Your task to perform on an android device: install app "Mercado Libre" Image 0: 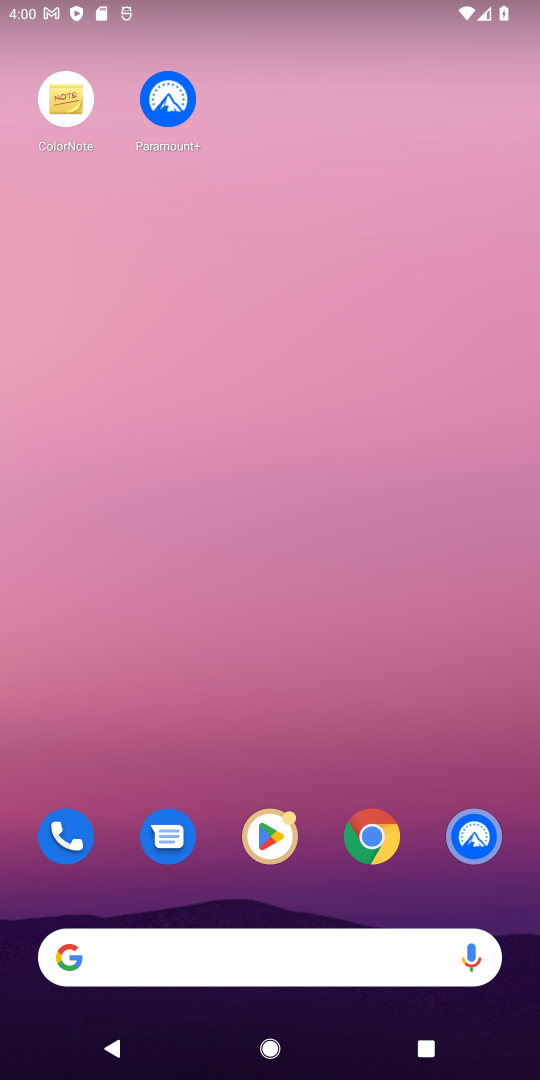
Step 0: drag from (258, 931) to (296, 311)
Your task to perform on an android device: install app "Mercado Libre" Image 1: 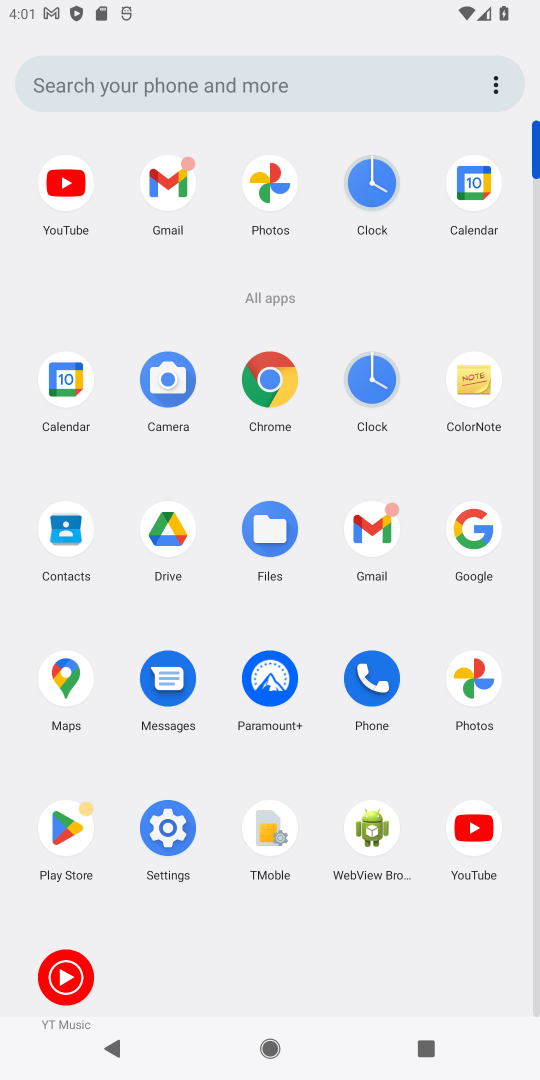
Step 1: click (74, 823)
Your task to perform on an android device: install app "Mercado Libre" Image 2: 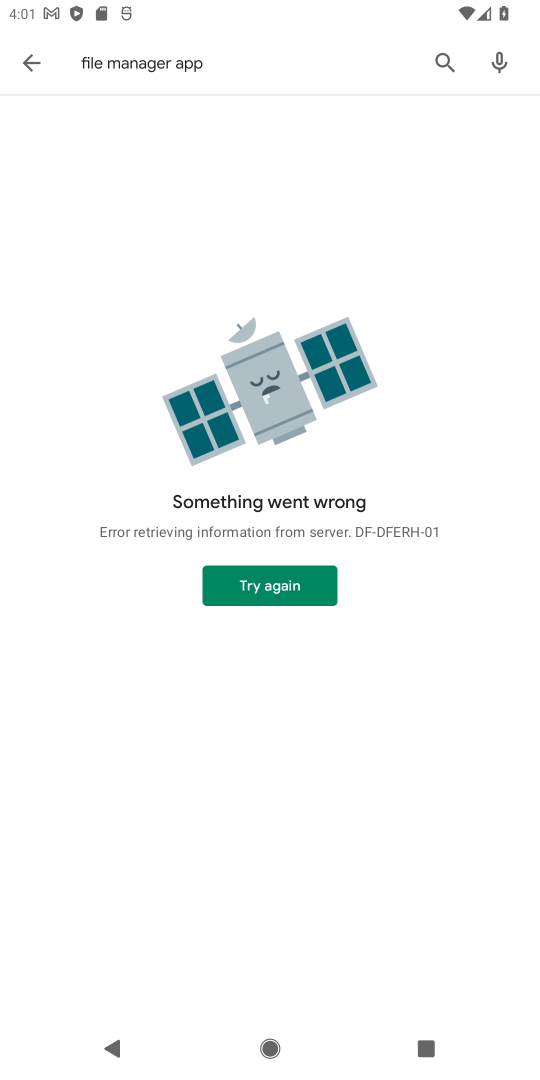
Step 2: click (17, 73)
Your task to perform on an android device: install app "Mercado Libre" Image 3: 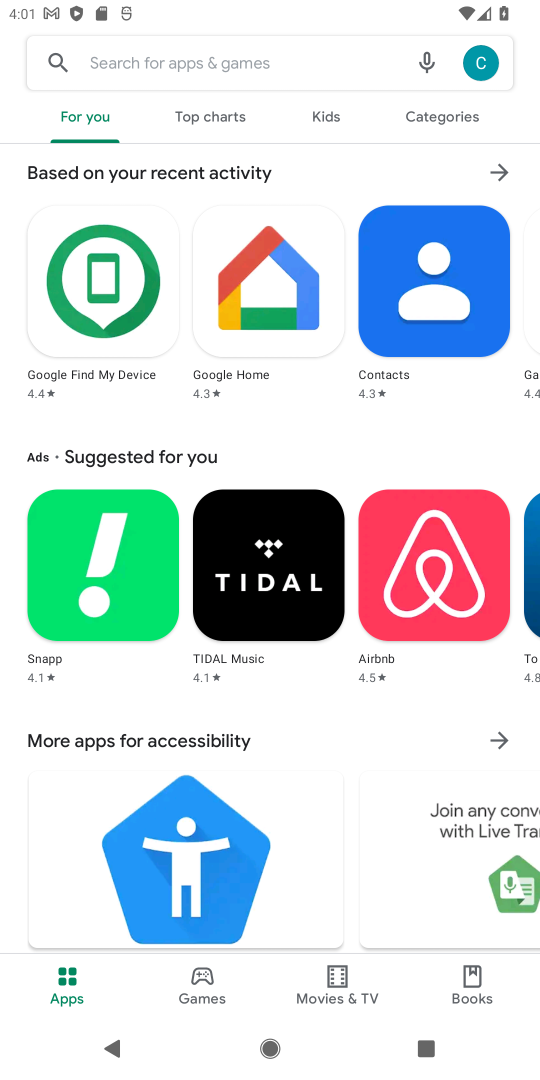
Step 3: click (185, 37)
Your task to perform on an android device: install app "Mercado Libre" Image 4: 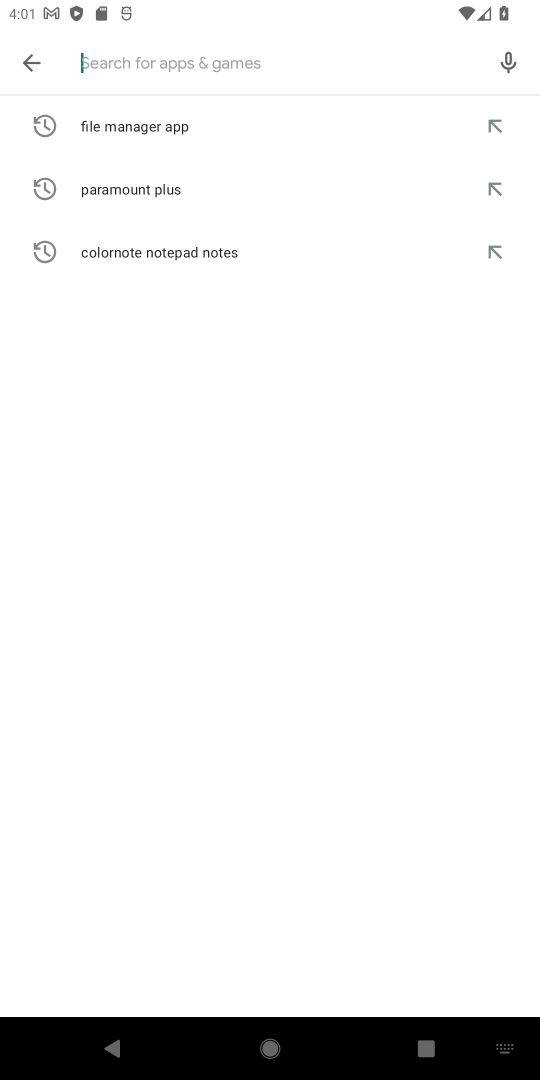
Step 4: type "Mercado Libre" "
Your task to perform on an android device: install app "Mercado Libre" Image 5: 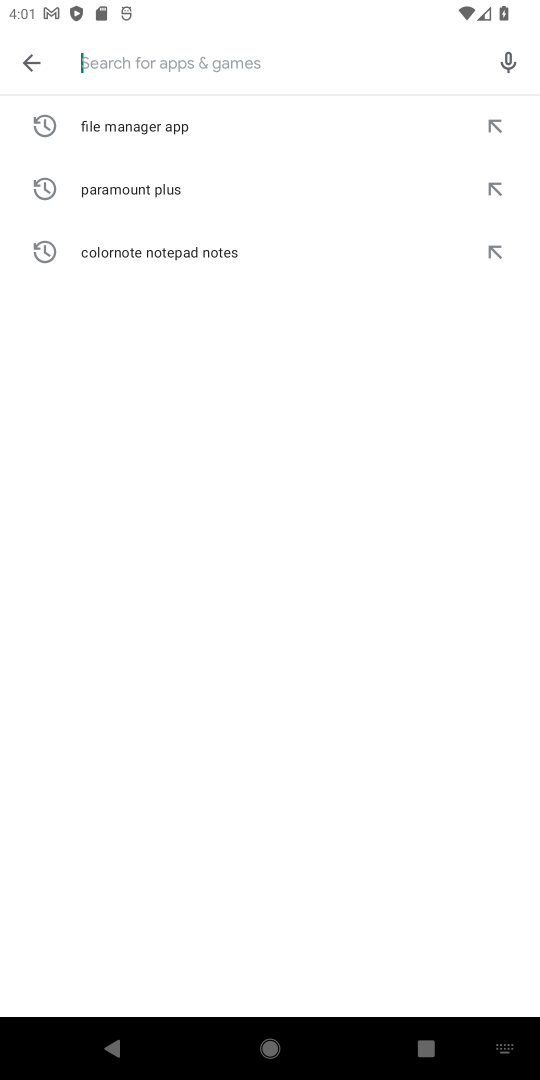
Step 5: click (237, 52)
Your task to perform on an android device: install app "Mercado Libre" Image 6: 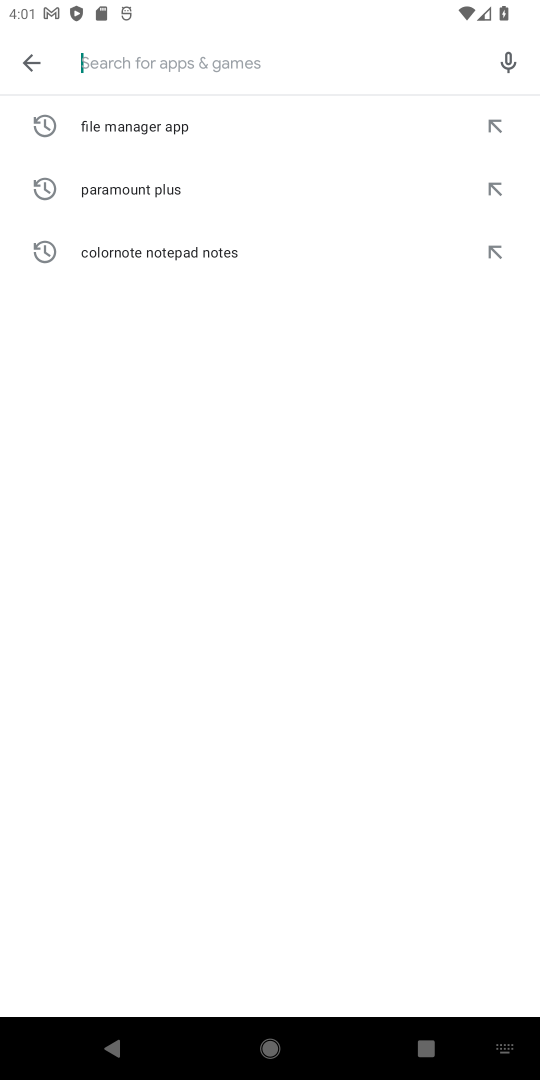
Step 6: type "Mercado Libre" "
Your task to perform on an android device: install app "Mercado Libre" Image 7: 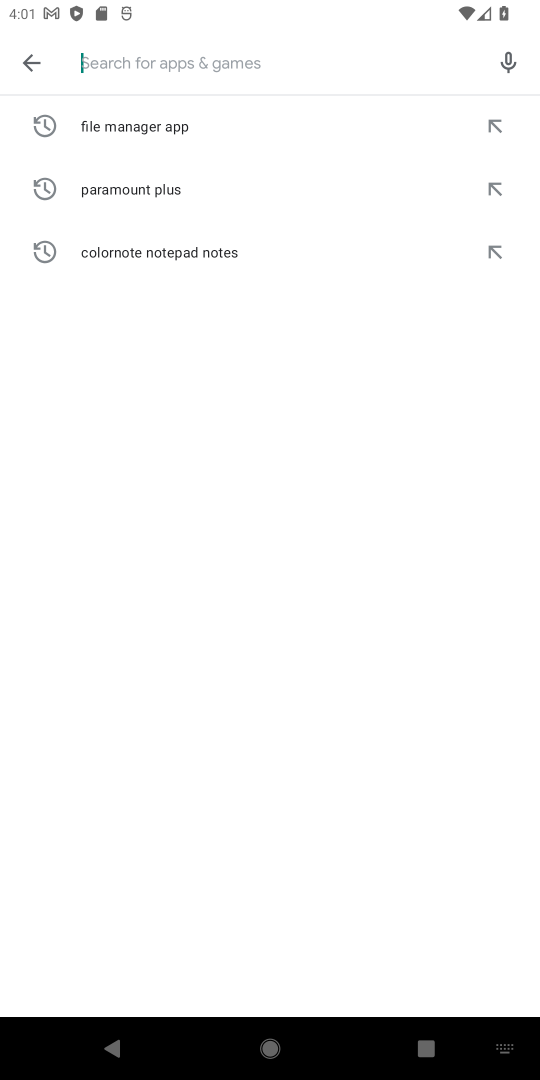
Step 7: click (201, 62)
Your task to perform on an android device: install app "Mercado Libre" Image 8: 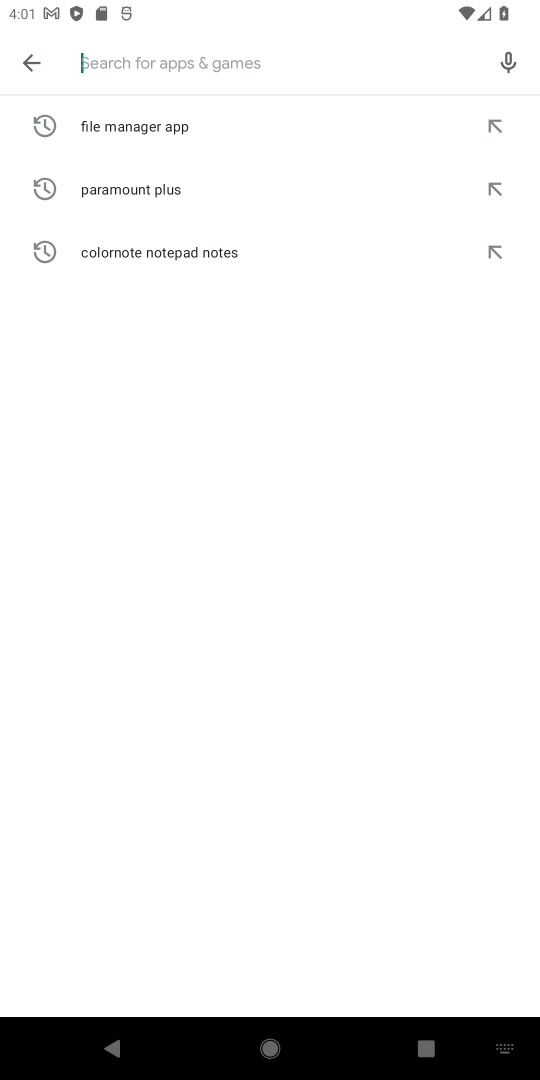
Step 8: type "mercado libre"
Your task to perform on an android device: install app "Mercado Libre" Image 9: 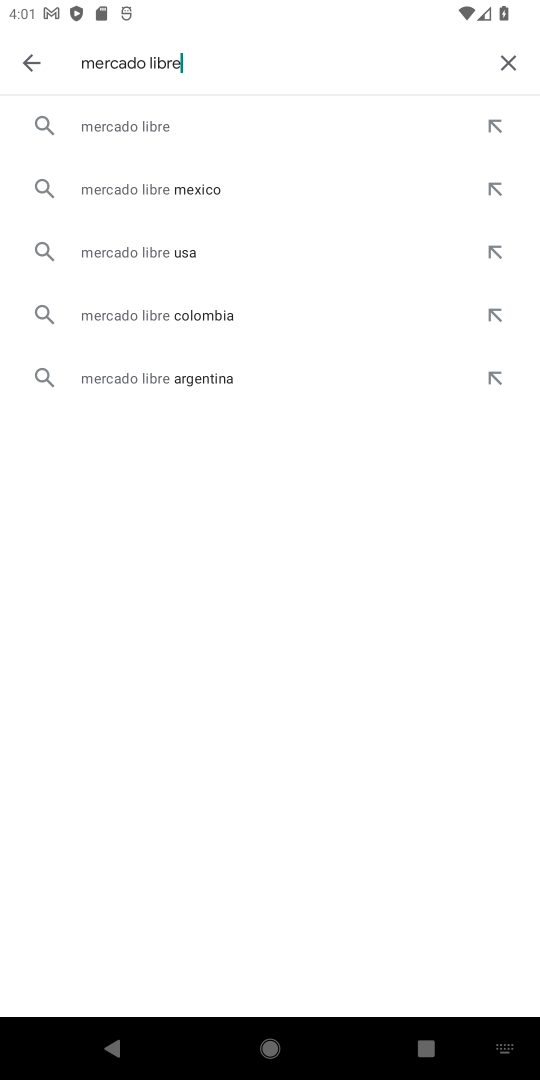
Step 9: click (137, 112)
Your task to perform on an android device: install app "Mercado Libre" Image 10: 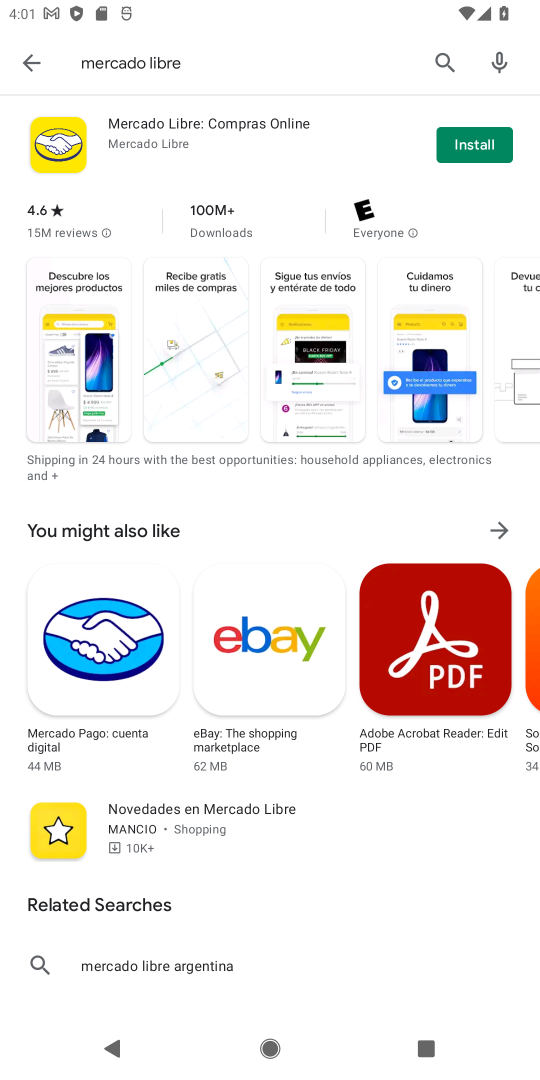
Step 10: click (140, 120)
Your task to perform on an android device: install app "Mercado Libre" Image 11: 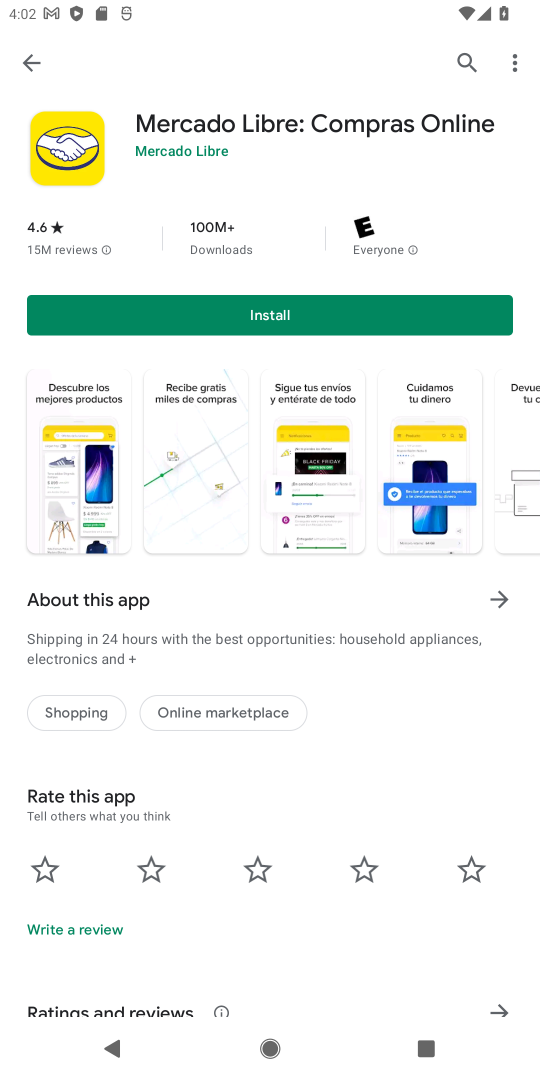
Step 11: click (312, 324)
Your task to perform on an android device: install app "Mercado Libre" Image 12: 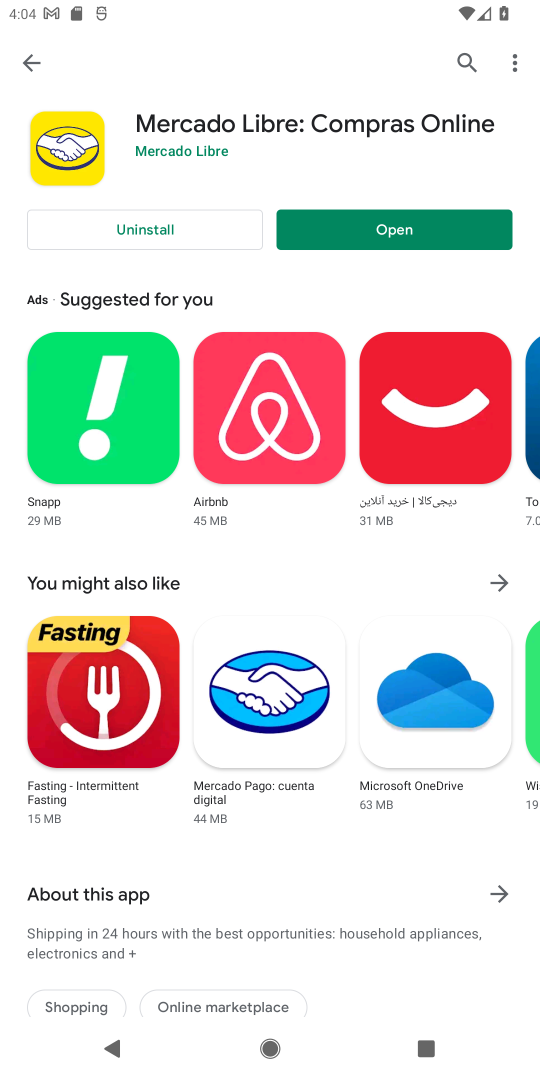
Step 12: click (431, 219)
Your task to perform on an android device: install app "Mercado Libre" Image 13: 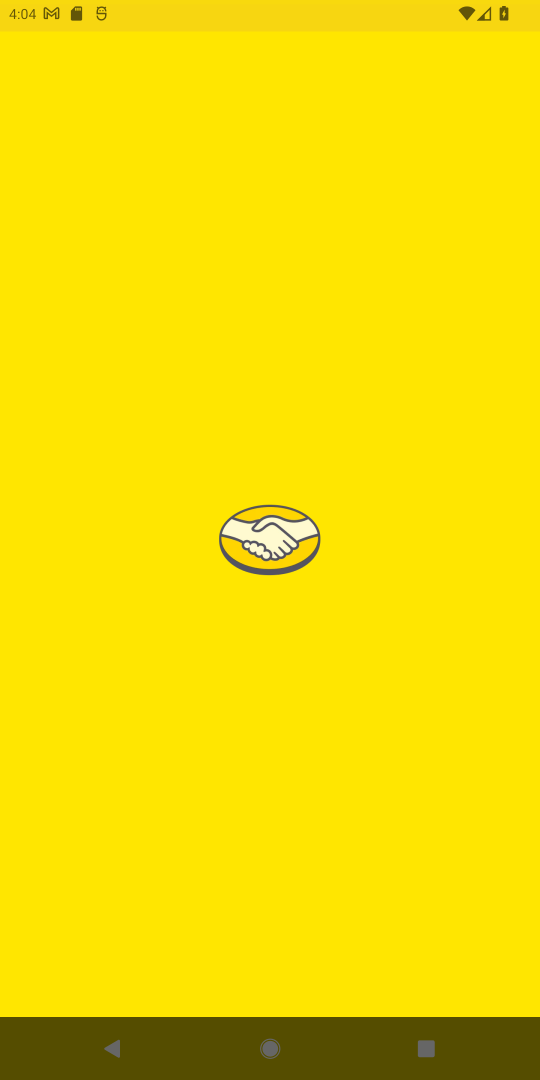
Step 13: task complete